Your task to perform on an android device: toggle priority inbox in the gmail app Image 0: 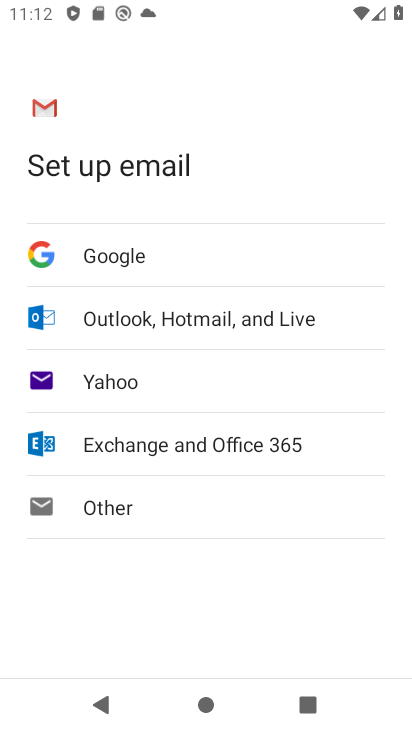
Step 0: press home button
Your task to perform on an android device: toggle priority inbox in the gmail app Image 1: 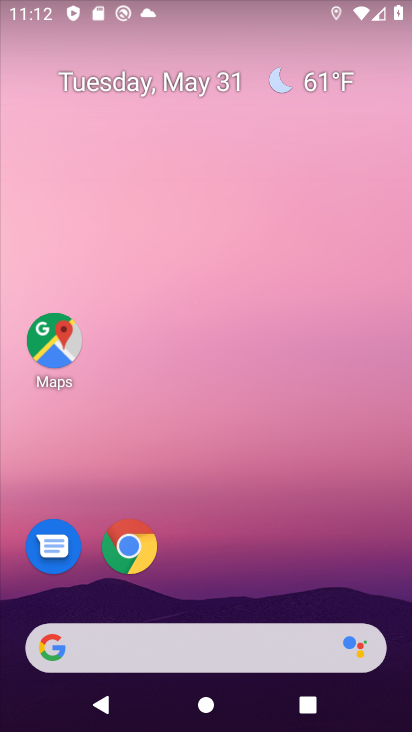
Step 1: drag from (205, 600) to (207, 16)
Your task to perform on an android device: toggle priority inbox in the gmail app Image 2: 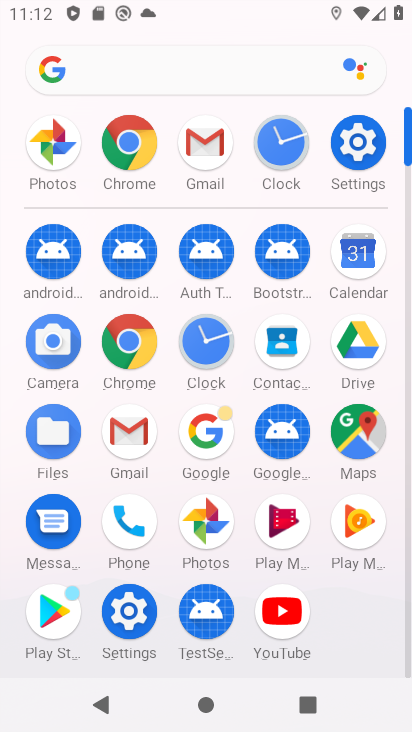
Step 2: click (132, 440)
Your task to perform on an android device: toggle priority inbox in the gmail app Image 3: 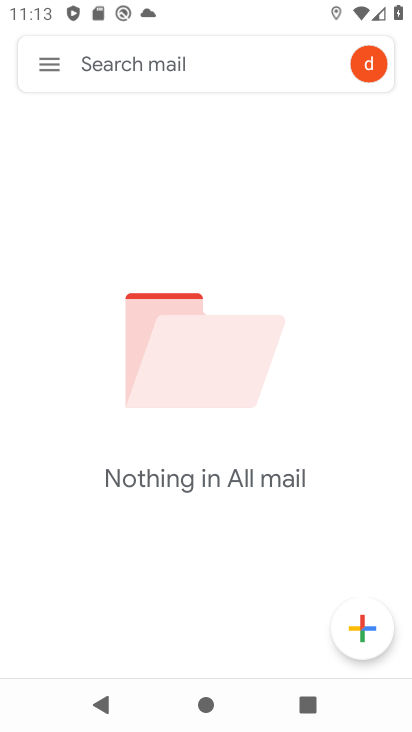
Step 3: click (45, 78)
Your task to perform on an android device: toggle priority inbox in the gmail app Image 4: 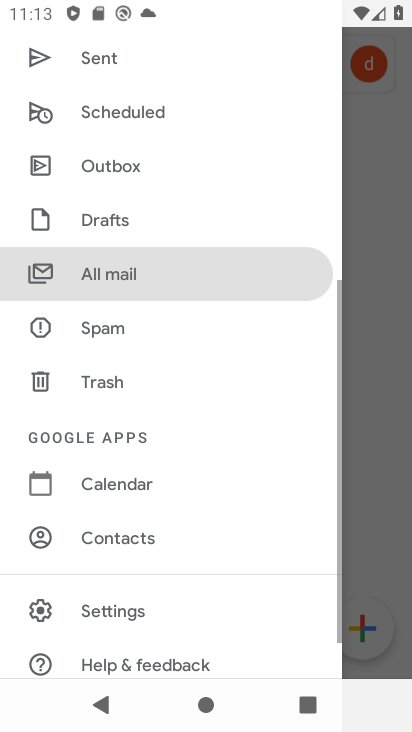
Step 4: click (134, 597)
Your task to perform on an android device: toggle priority inbox in the gmail app Image 5: 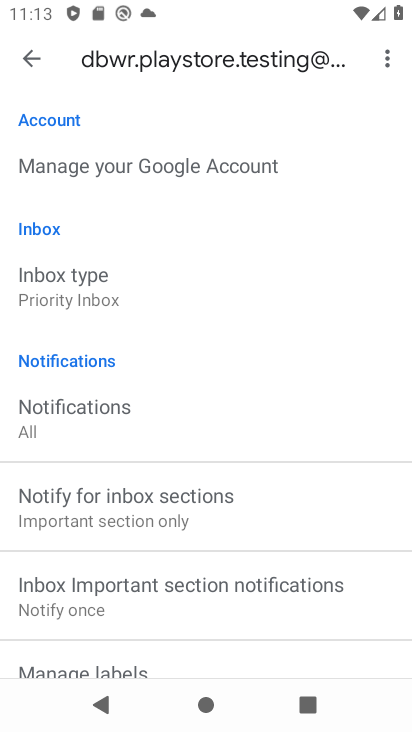
Step 5: click (103, 298)
Your task to perform on an android device: toggle priority inbox in the gmail app Image 6: 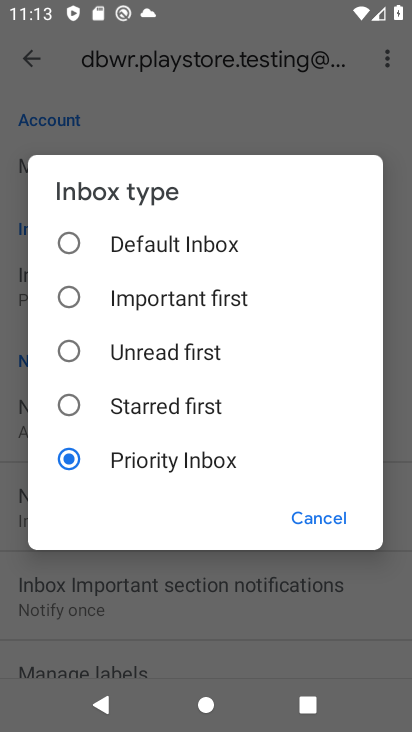
Step 6: click (125, 390)
Your task to perform on an android device: toggle priority inbox in the gmail app Image 7: 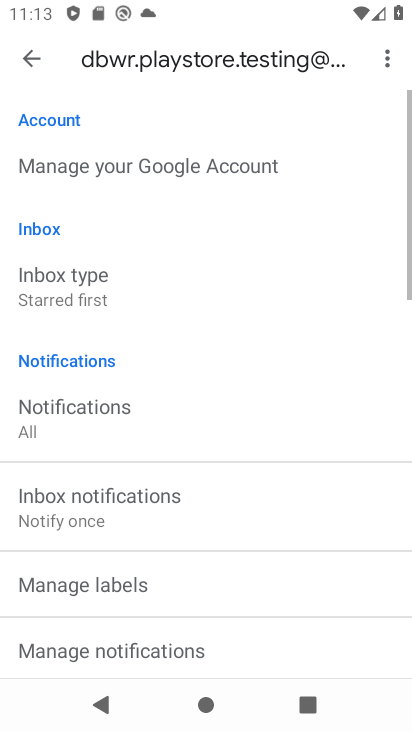
Step 7: task complete